Your task to perform on an android device: Open maps Image 0: 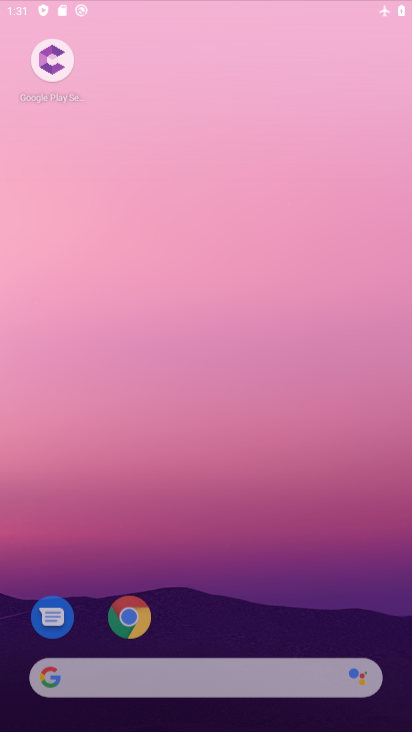
Step 0: click (180, 110)
Your task to perform on an android device: Open maps Image 1: 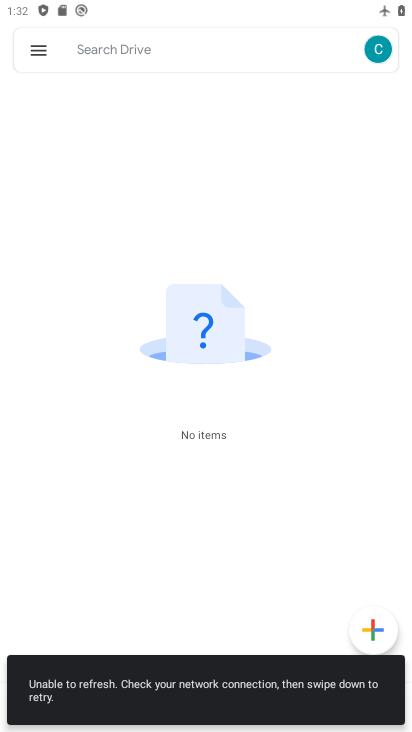
Step 1: press home button
Your task to perform on an android device: Open maps Image 2: 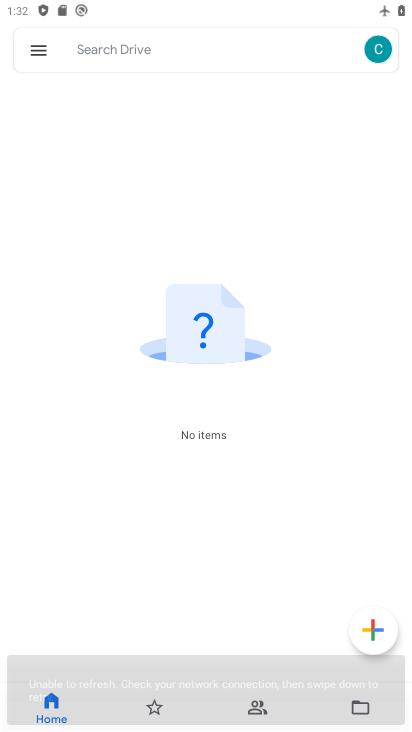
Step 2: press home button
Your task to perform on an android device: Open maps Image 3: 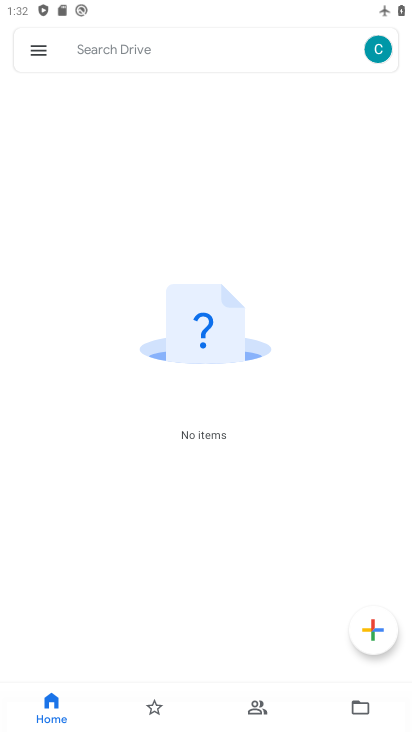
Step 3: click (281, 219)
Your task to perform on an android device: Open maps Image 4: 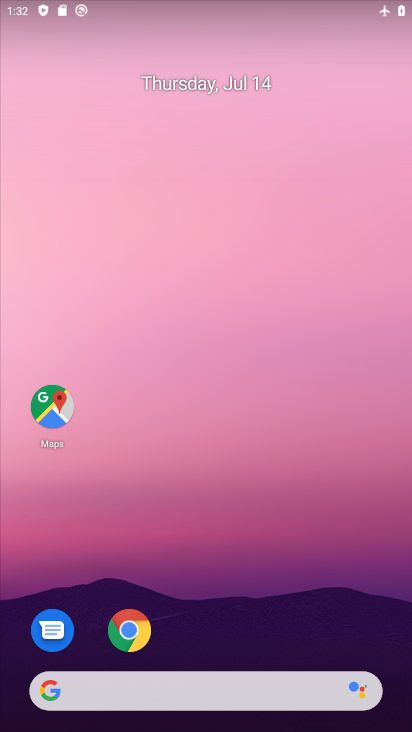
Step 4: drag from (223, 604) to (273, 259)
Your task to perform on an android device: Open maps Image 5: 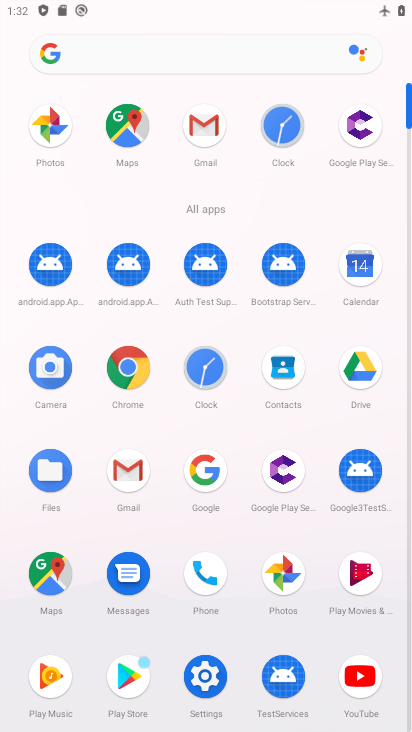
Step 5: drag from (171, 634) to (246, 161)
Your task to perform on an android device: Open maps Image 6: 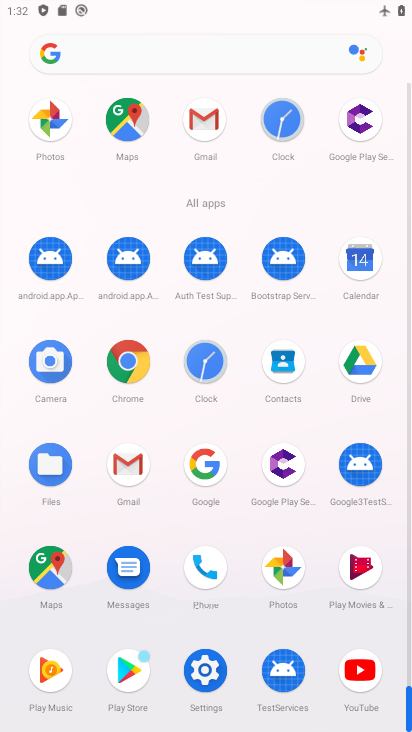
Step 6: drag from (225, 598) to (280, 230)
Your task to perform on an android device: Open maps Image 7: 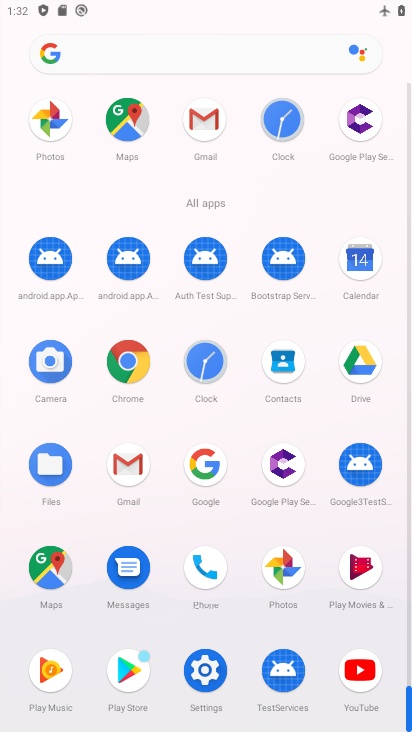
Step 7: drag from (256, 607) to (278, 252)
Your task to perform on an android device: Open maps Image 8: 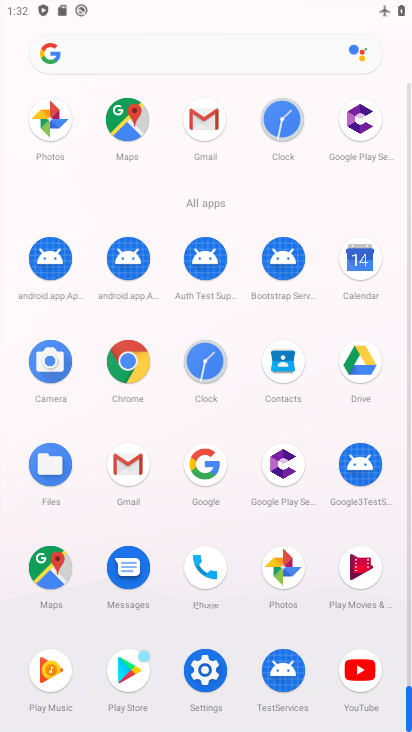
Step 8: drag from (264, 517) to (275, 404)
Your task to perform on an android device: Open maps Image 9: 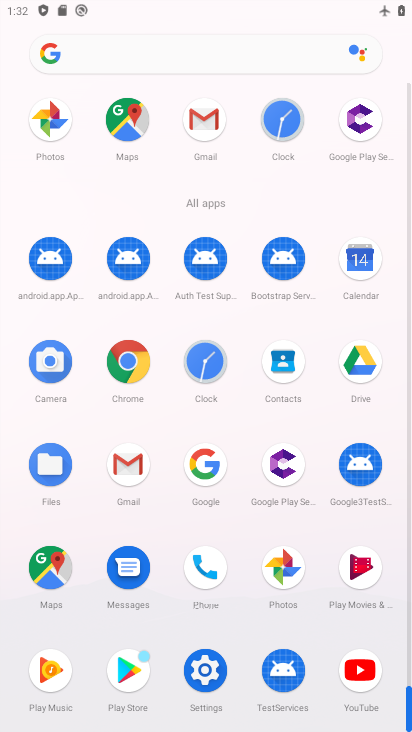
Step 9: click (276, 558)
Your task to perform on an android device: Open maps Image 10: 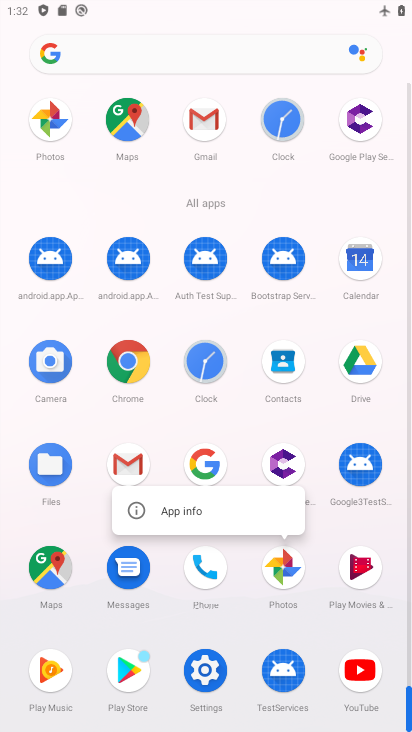
Step 10: click (55, 557)
Your task to perform on an android device: Open maps Image 11: 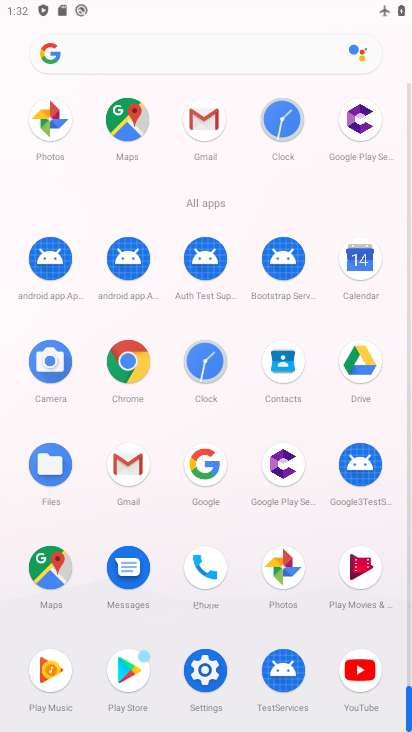
Step 11: click (39, 558)
Your task to perform on an android device: Open maps Image 12: 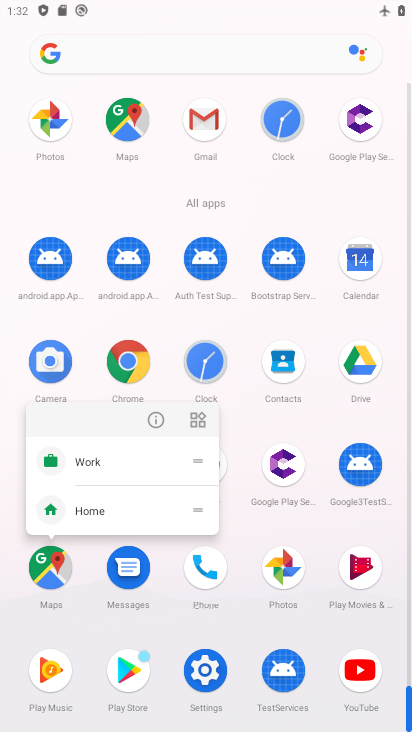
Step 12: click (141, 415)
Your task to perform on an android device: Open maps Image 13: 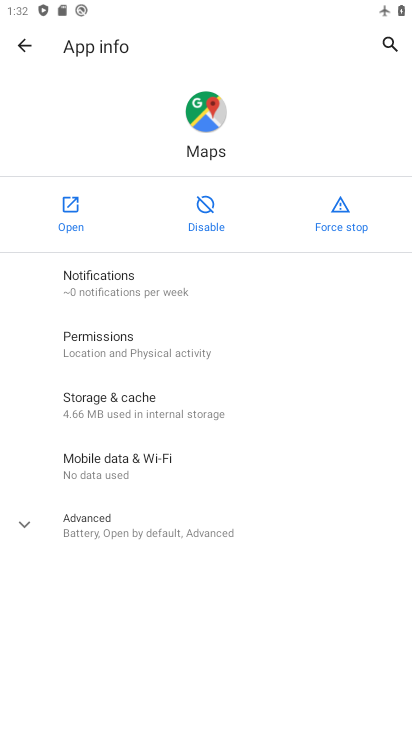
Step 13: click (61, 202)
Your task to perform on an android device: Open maps Image 14: 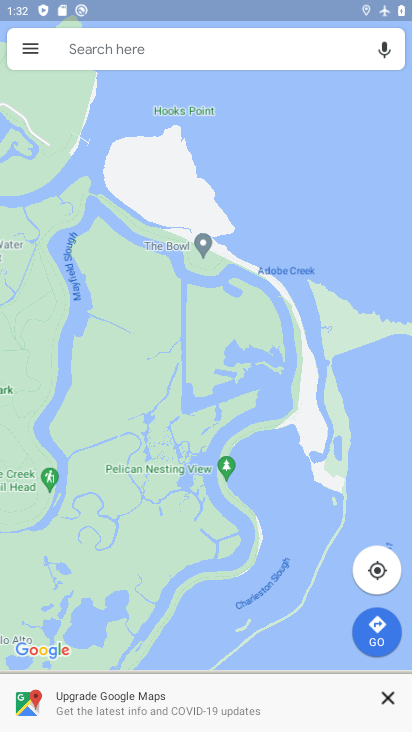
Step 14: click (399, 701)
Your task to perform on an android device: Open maps Image 15: 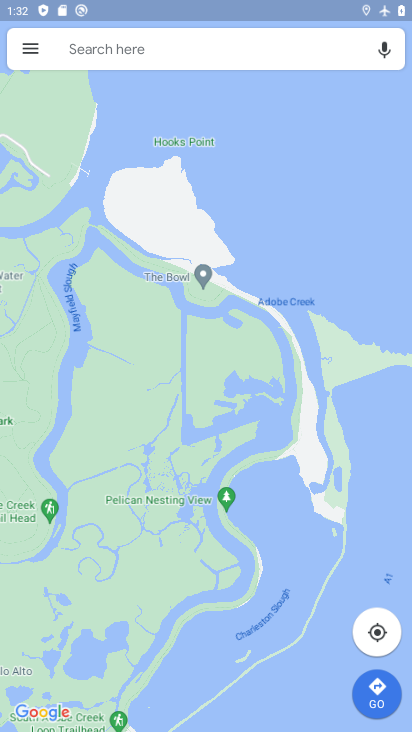
Step 15: task complete